Your task to perform on an android device: see sites visited before in the chrome app Image 0: 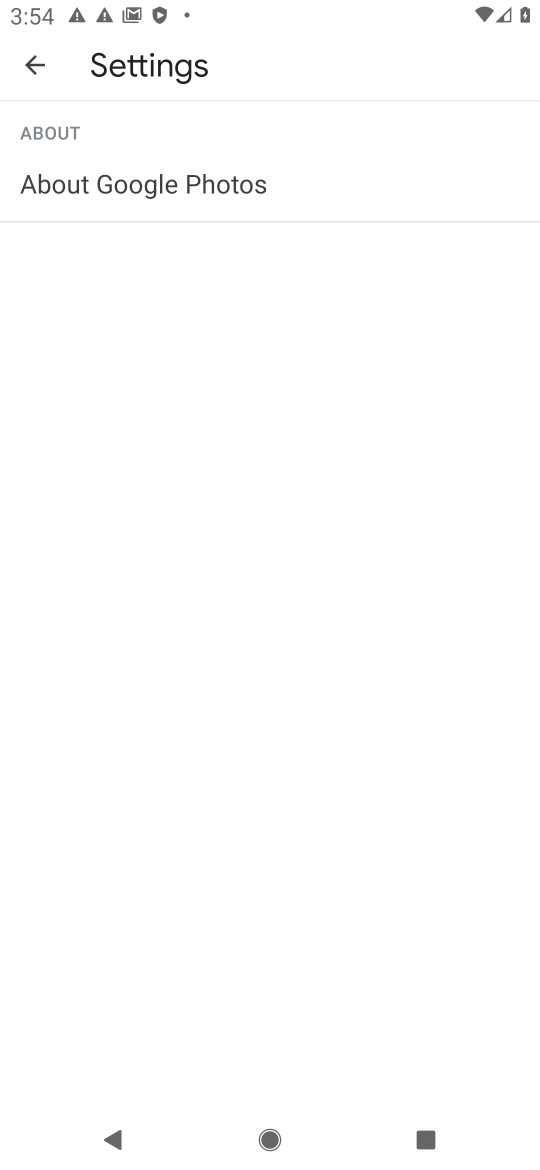
Step 0: press home button
Your task to perform on an android device: see sites visited before in the chrome app Image 1: 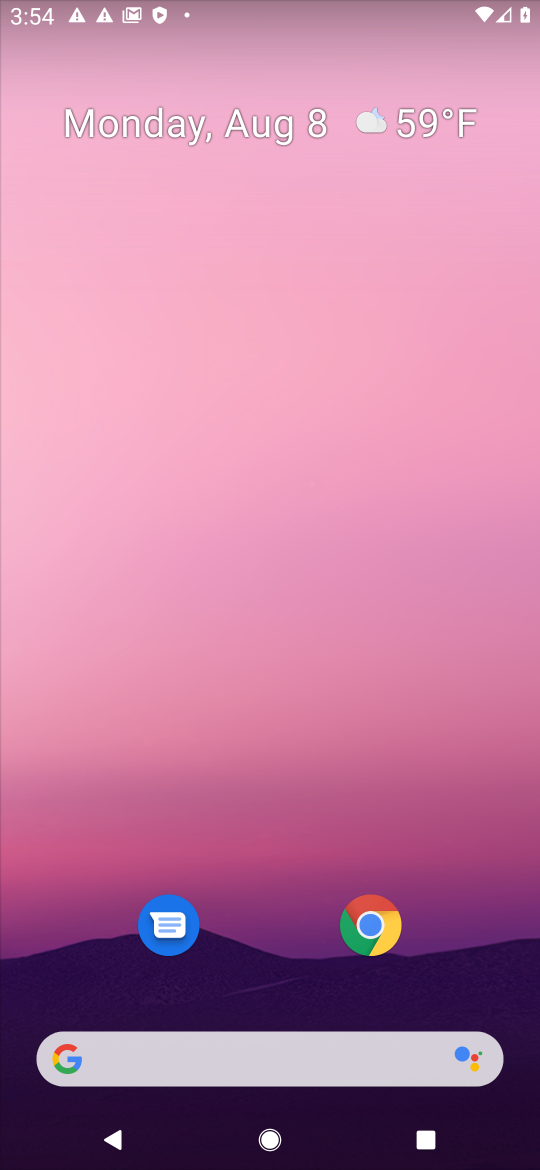
Step 1: click (375, 925)
Your task to perform on an android device: see sites visited before in the chrome app Image 2: 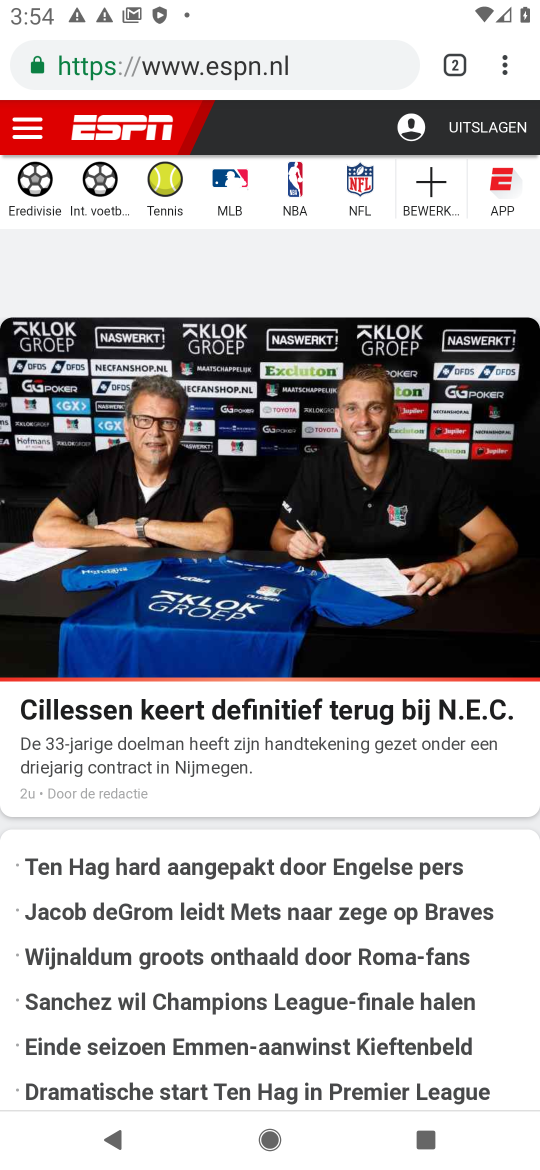
Step 2: task complete